Your task to perform on an android device: Go to Android settings Image 0: 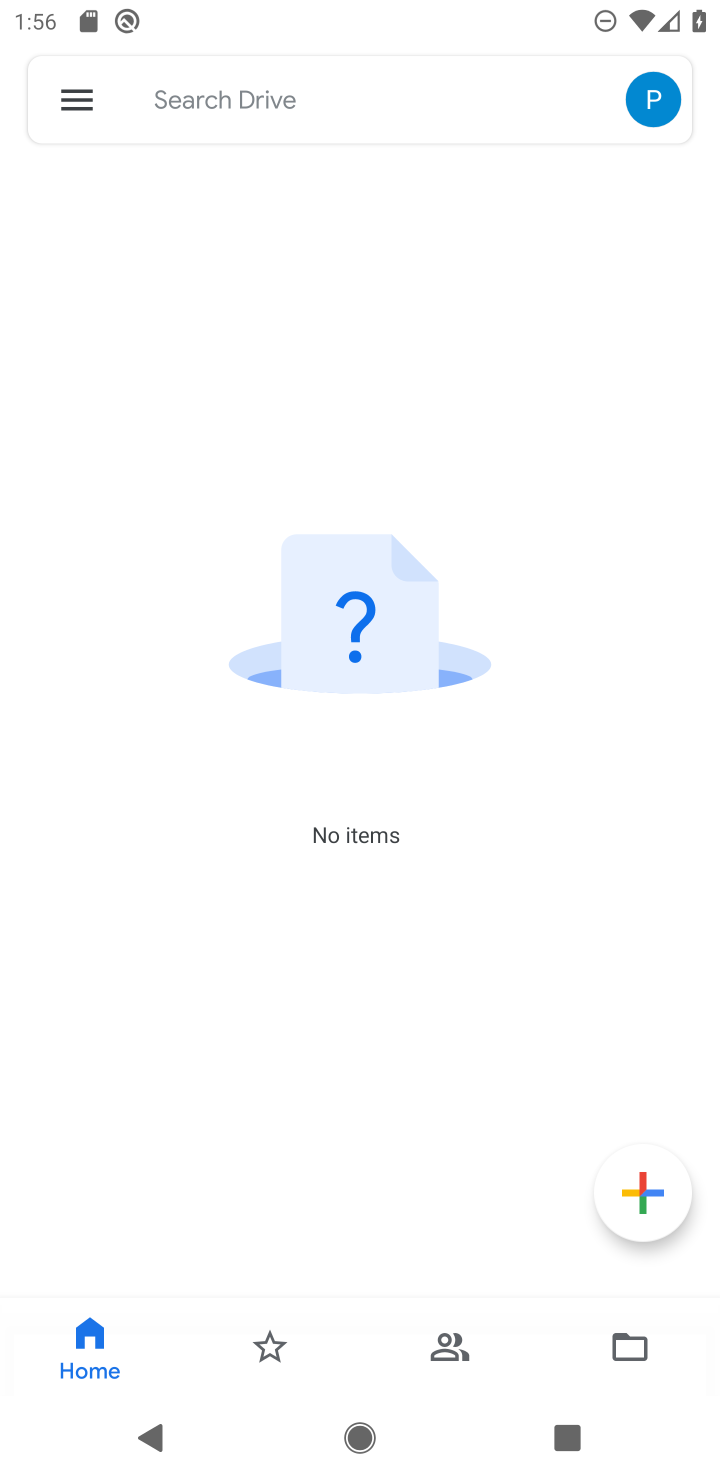
Step 0: press home button
Your task to perform on an android device: Go to Android settings Image 1: 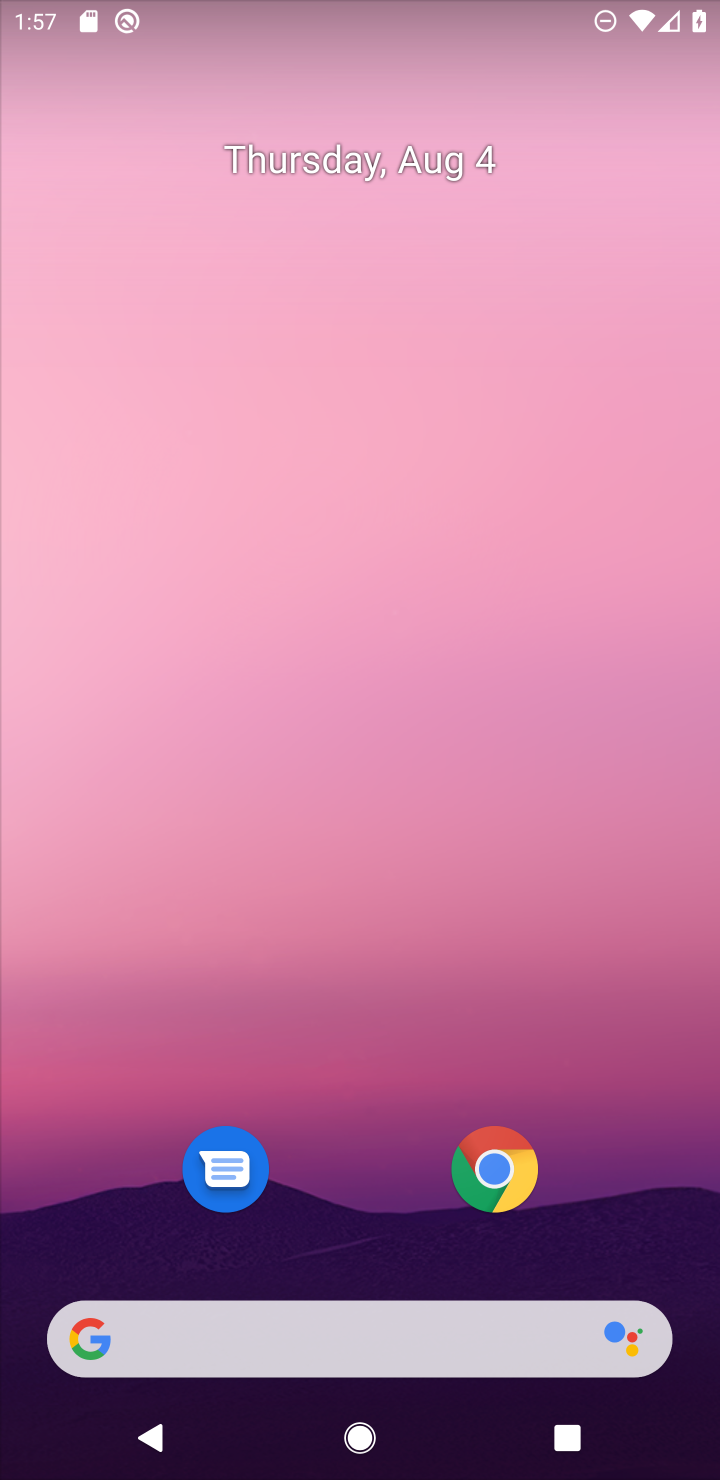
Step 1: drag from (406, 1139) to (452, 83)
Your task to perform on an android device: Go to Android settings Image 2: 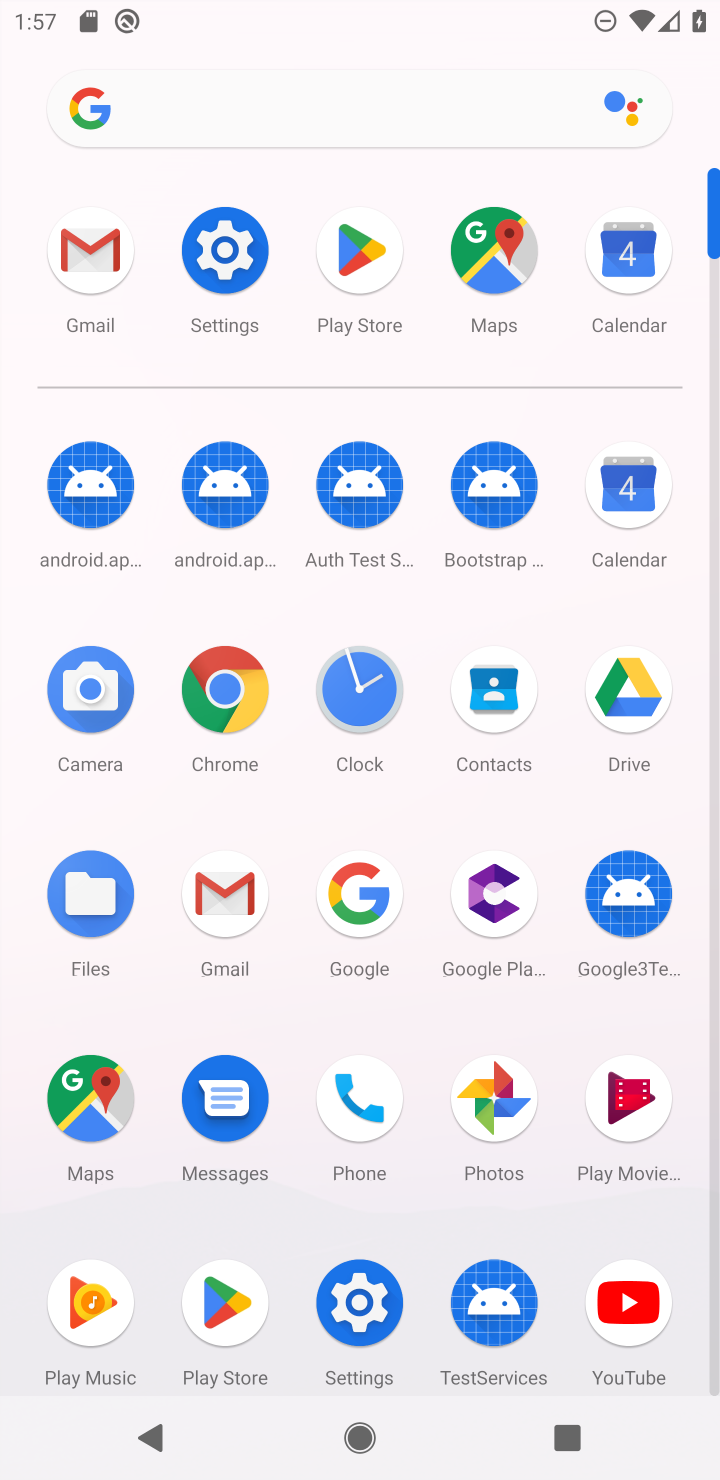
Step 2: click (222, 248)
Your task to perform on an android device: Go to Android settings Image 3: 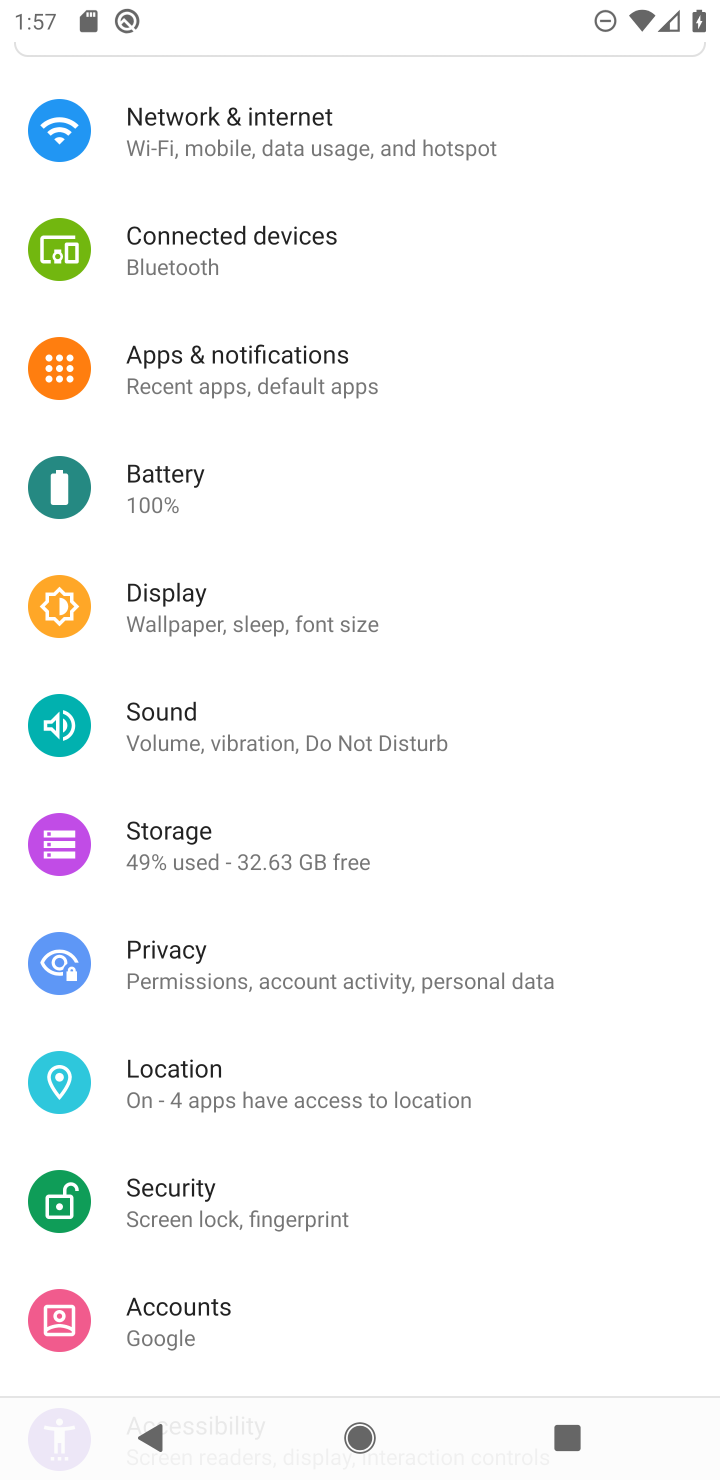
Step 3: task complete